Your task to perform on an android device: Go to battery settings Image 0: 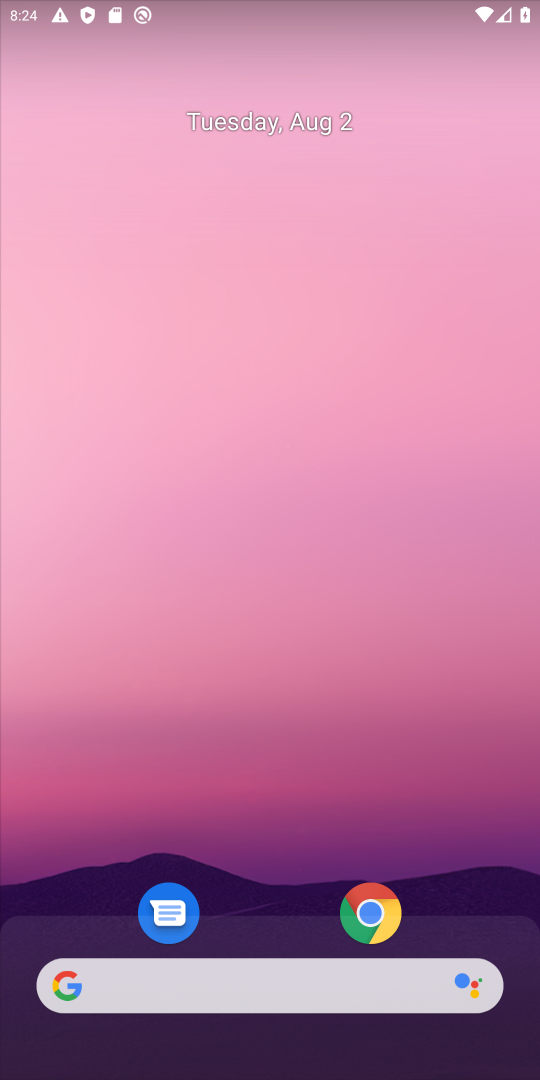
Step 0: drag from (293, 822) to (293, 259)
Your task to perform on an android device: Go to battery settings Image 1: 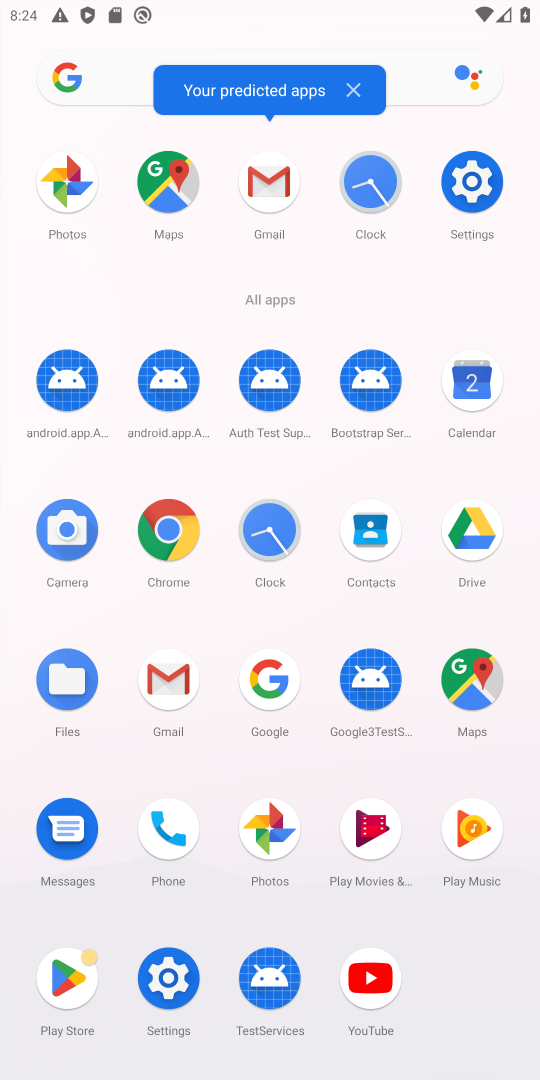
Step 1: click (464, 197)
Your task to perform on an android device: Go to battery settings Image 2: 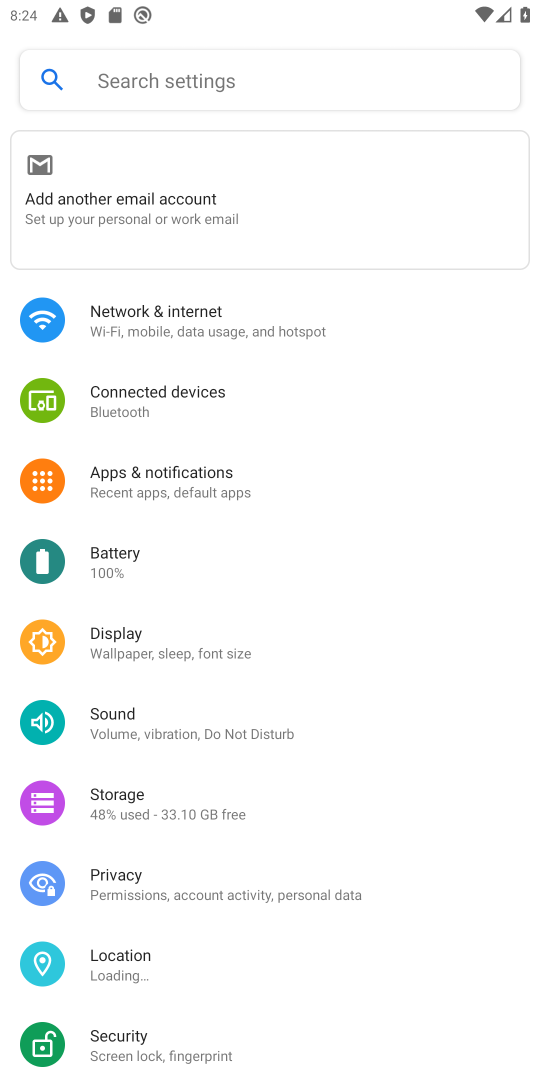
Step 2: click (153, 560)
Your task to perform on an android device: Go to battery settings Image 3: 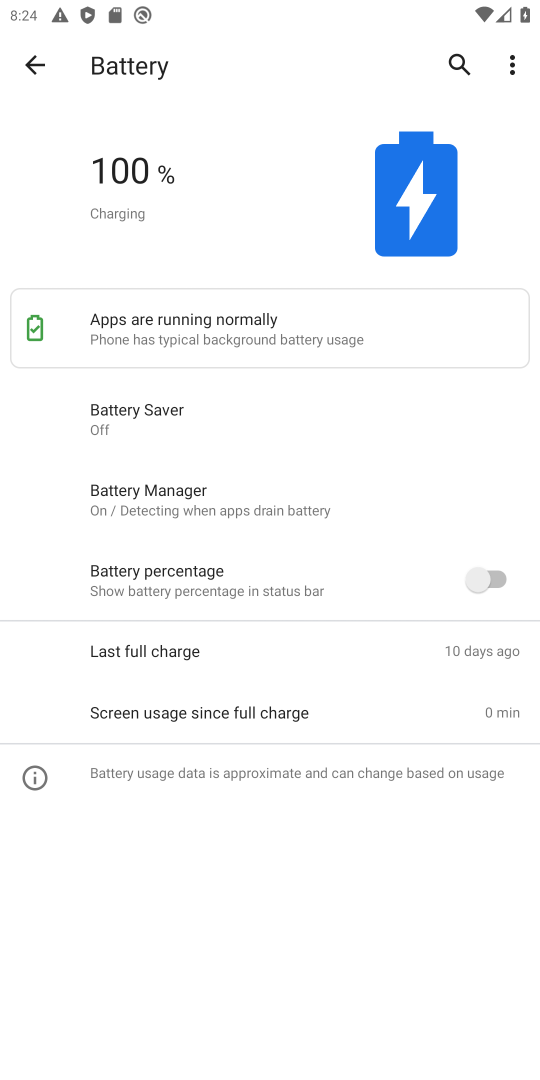
Step 3: task complete